Your task to perform on an android device: turn on notifications settings in the gmail app Image 0: 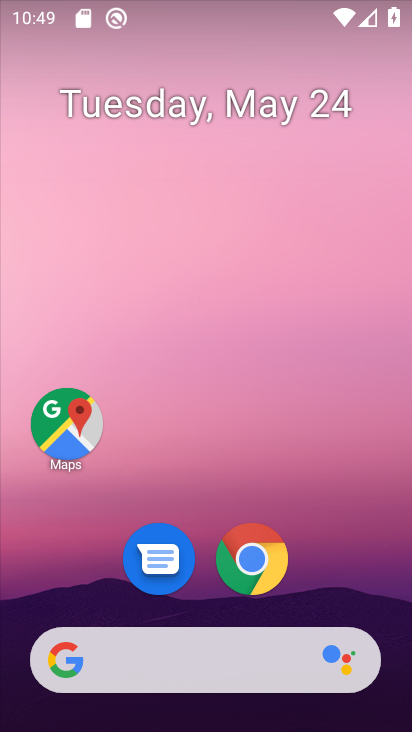
Step 0: drag from (96, 622) to (186, 70)
Your task to perform on an android device: turn on notifications settings in the gmail app Image 1: 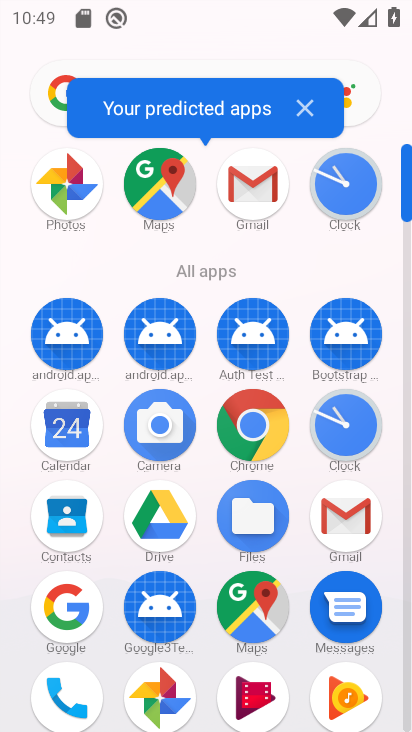
Step 1: drag from (134, 605) to (211, 346)
Your task to perform on an android device: turn on notifications settings in the gmail app Image 2: 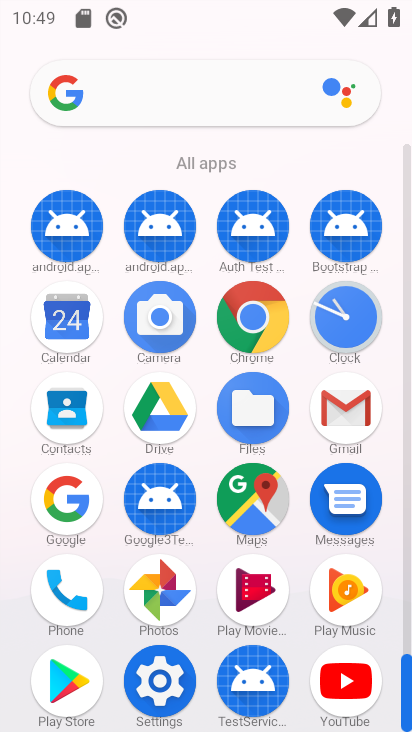
Step 2: click (330, 405)
Your task to perform on an android device: turn on notifications settings in the gmail app Image 3: 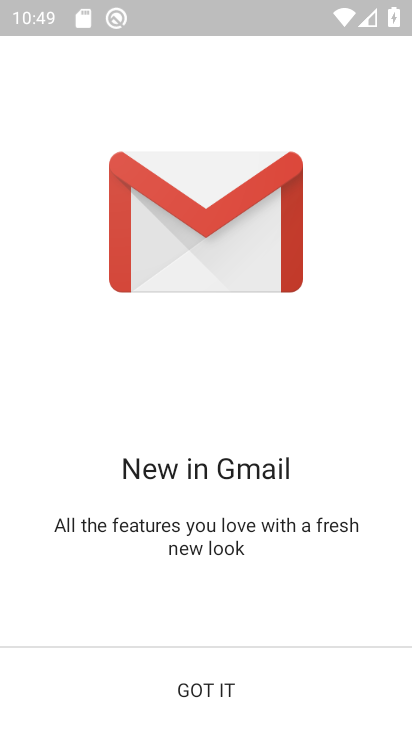
Step 3: click (234, 683)
Your task to perform on an android device: turn on notifications settings in the gmail app Image 4: 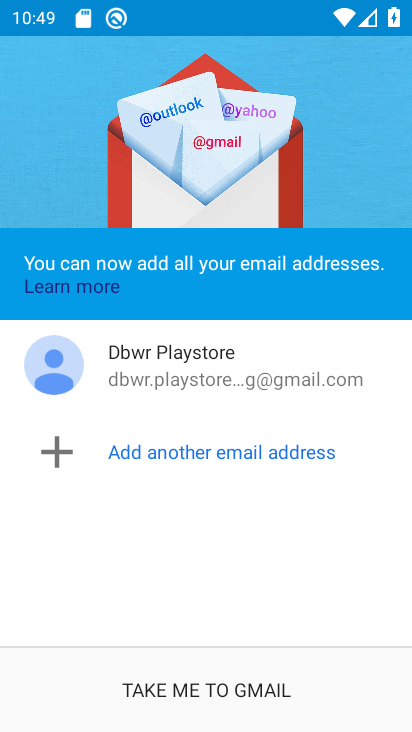
Step 4: click (232, 701)
Your task to perform on an android device: turn on notifications settings in the gmail app Image 5: 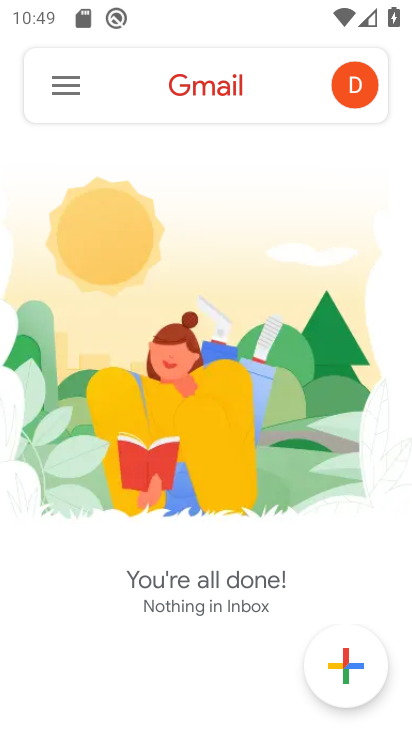
Step 5: click (76, 92)
Your task to perform on an android device: turn on notifications settings in the gmail app Image 6: 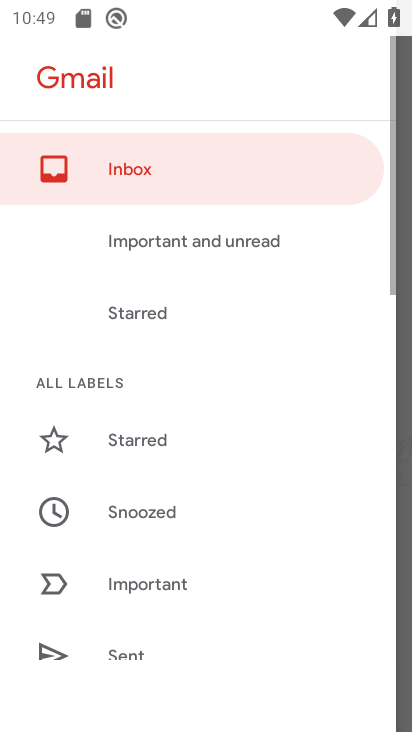
Step 6: drag from (177, 664) to (296, 141)
Your task to perform on an android device: turn on notifications settings in the gmail app Image 7: 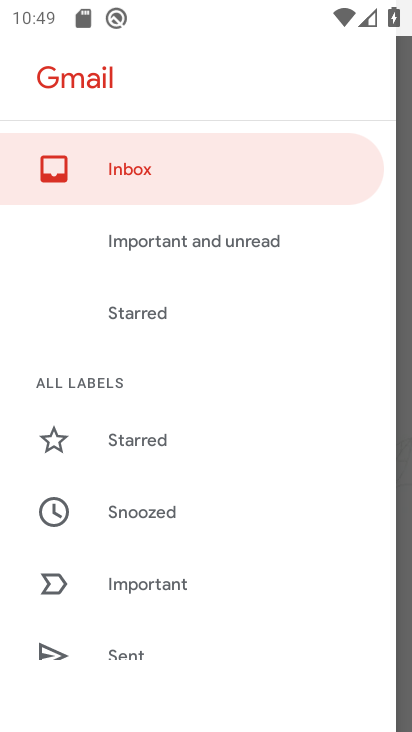
Step 7: drag from (152, 646) to (260, 151)
Your task to perform on an android device: turn on notifications settings in the gmail app Image 8: 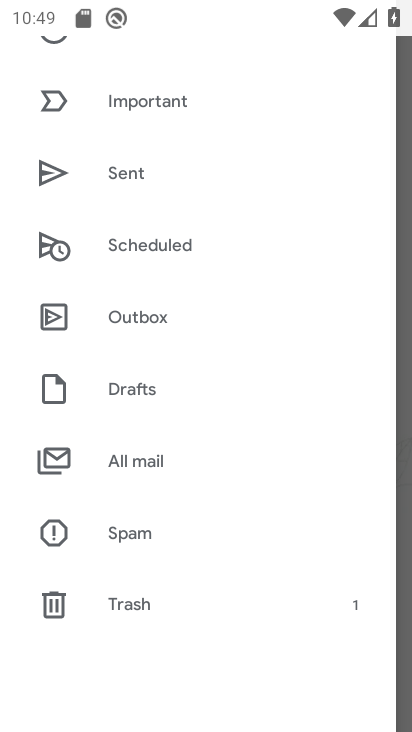
Step 8: drag from (154, 714) to (268, 204)
Your task to perform on an android device: turn on notifications settings in the gmail app Image 9: 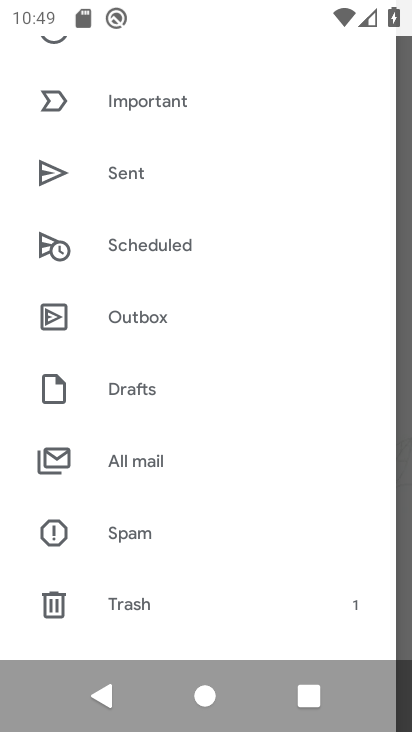
Step 9: drag from (195, 577) to (288, 177)
Your task to perform on an android device: turn on notifications settings in the gmail app Image 10: 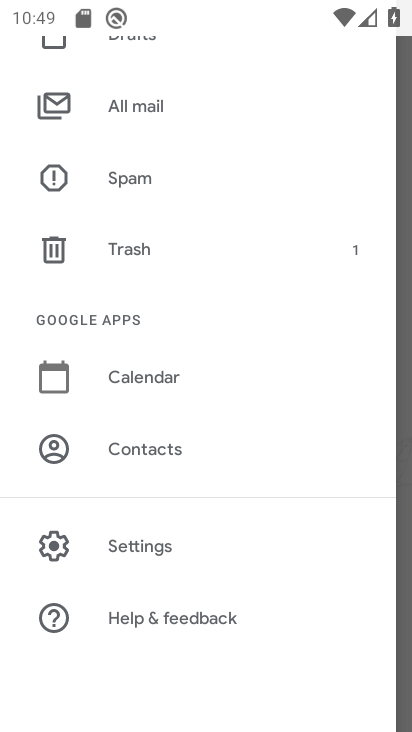
Step 10: click (114, 522)
Your task to perform on an android device: turn on notifications settings in the gmail app Image 11: 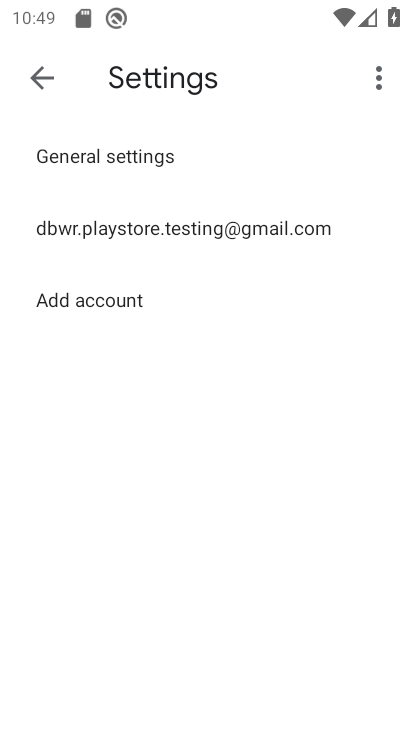
Step 11: click (287, 222)
Your task to perform on an android device: turn on notifications settings in the gmail app Image 12: 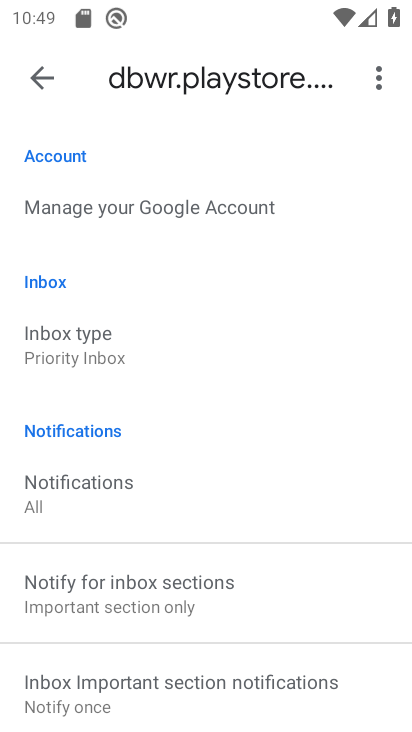
Step 12: drag from (127, 492) to (217, 136)
Your task to perform on an android device: turn on notifications settings in the gmail app Image 13: 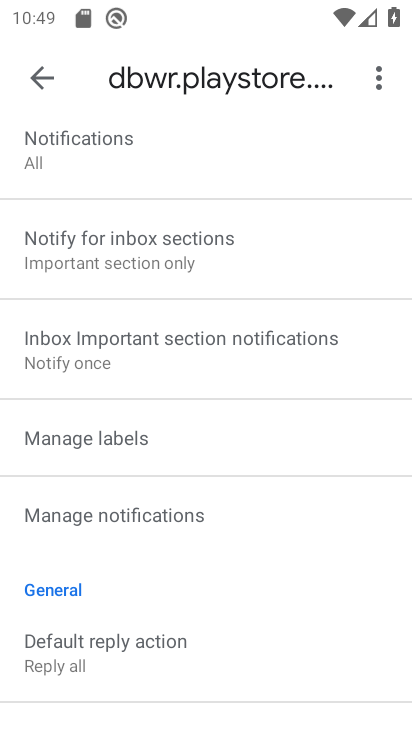
Step 13: click (196, 520)
Your task to perform on an android device: turn on notifications settings in the gmail app Image 14: 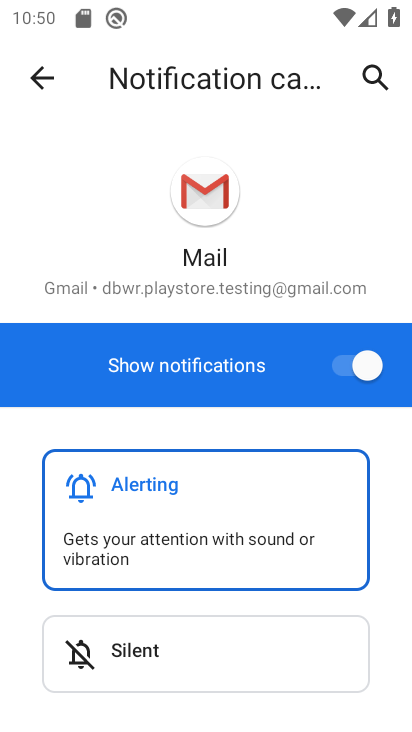
Step 14: task complete